Your task to perform on an android device: change timer sound Image 0: 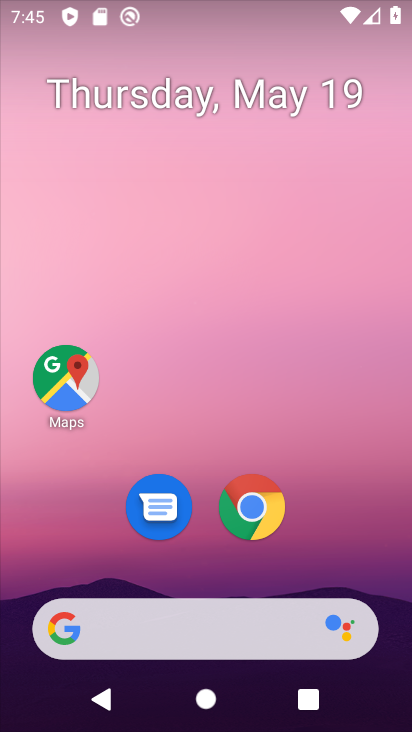
Step 0: drag from (322, 536) to (328, 89)
Your task to perform on an android device: change timer sound Image 1: 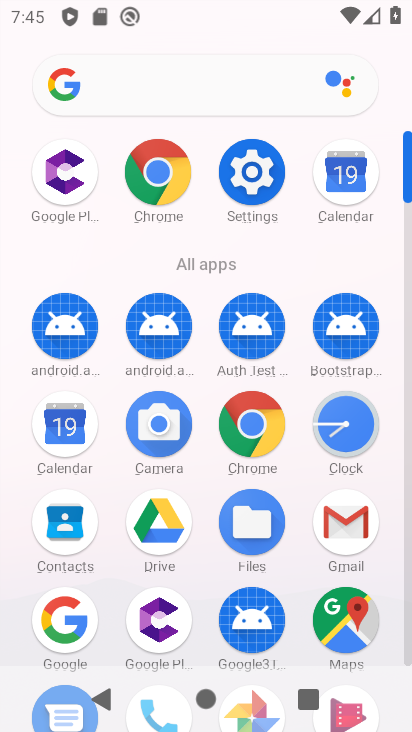
Step 1: click (327, 428)
Your task to perform on an android device: change timer sound Image 2: 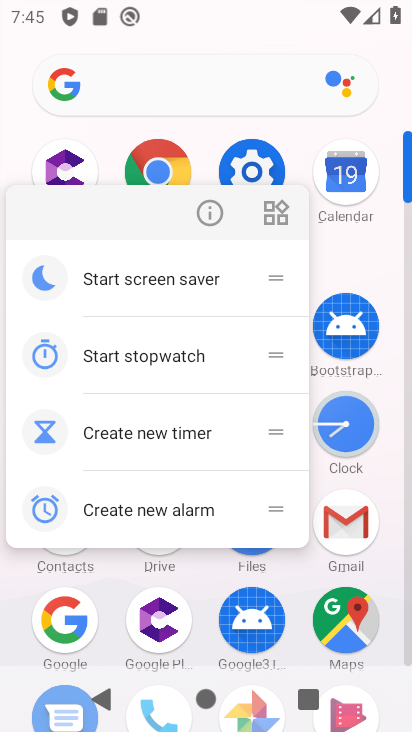
Step 2: click (338, 417)
Your task to perform on an android device: change timer sound Image 3: 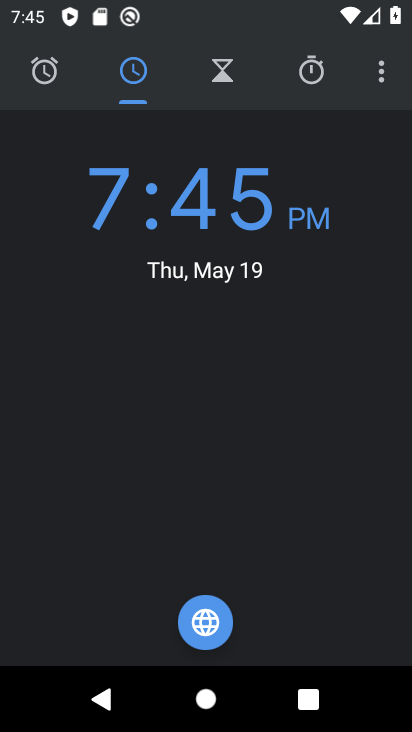
Step 3: click (381, 74)
Your task to perform on an android device: change timer sound Image 4: 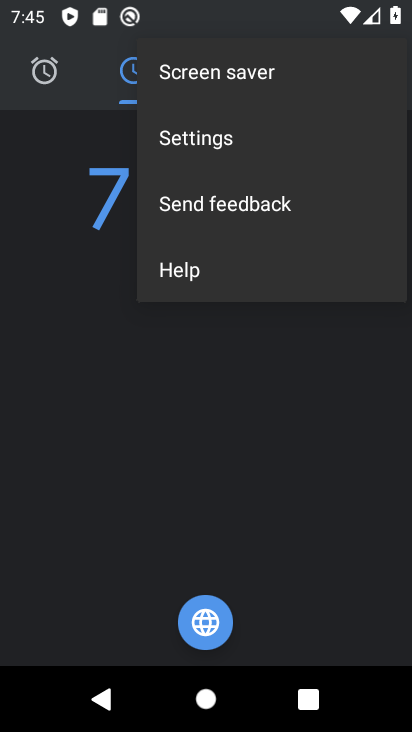
Step 4: click (237, 154)
Your task to perform on an android device: change timer sound Image 5: 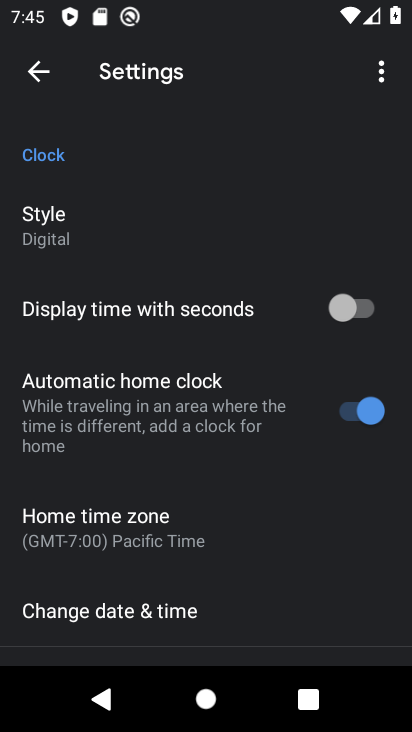
Step 5: drag from (195, 495) to (279, 77)
Your task to perform on an android device: change timer sound Image 6: 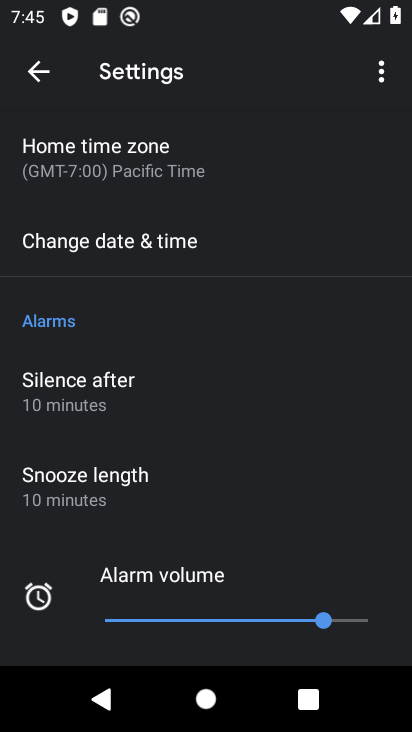
Step 6: drag from (232, 522) to (312, 138)
Your task to perform on an android device: change timer sound Image 7: 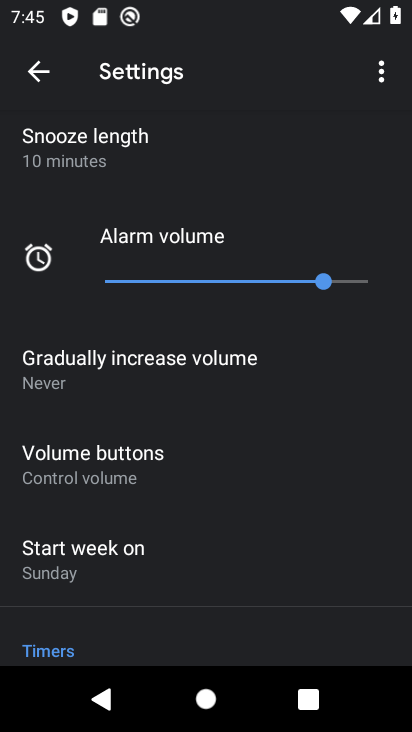
Step 7: drag from (199, 549) to (260, 289)
Your task to perform on an android device: change timer sound Image 8: 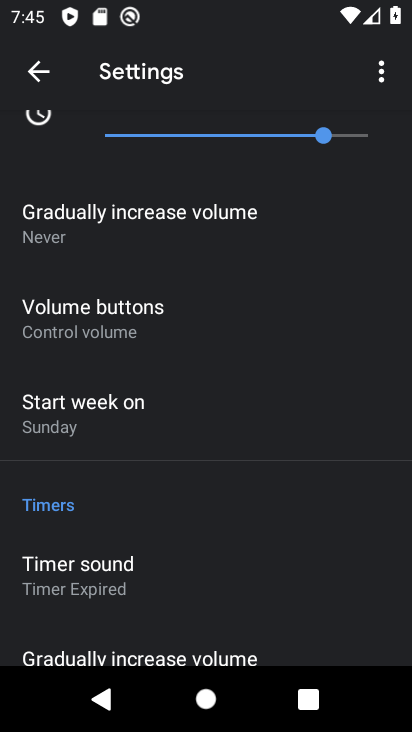
Step 8: click (103, 582)
Your task to perform on an android device: change timer sound Image 9: 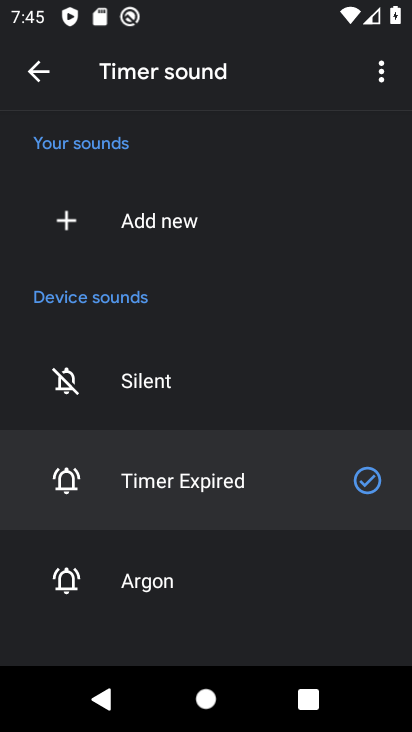
Step 9: click (133, 576)
Your task to perform on an android device: change timer sound Image 10: 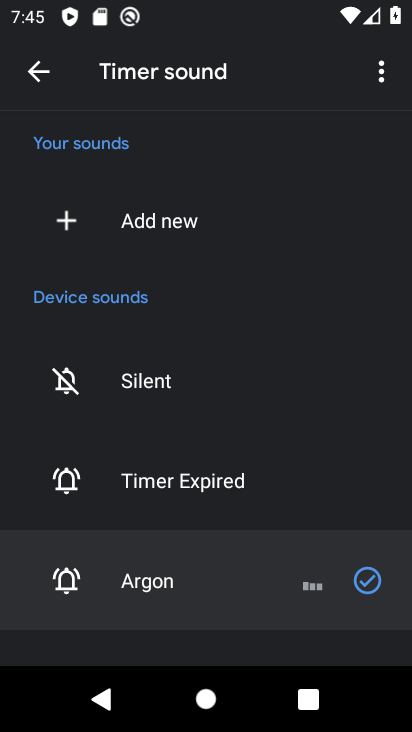
Step 10: task complete